Your task to perform on an android device: refresh tabs in the chrome app Image 0: 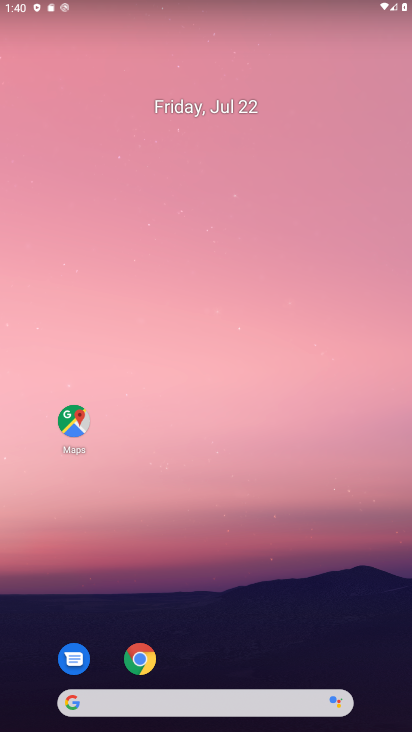
Step 0: click (151, 664)
Your task to perform on an android device: refresh tabs in the chrome app Image 1: 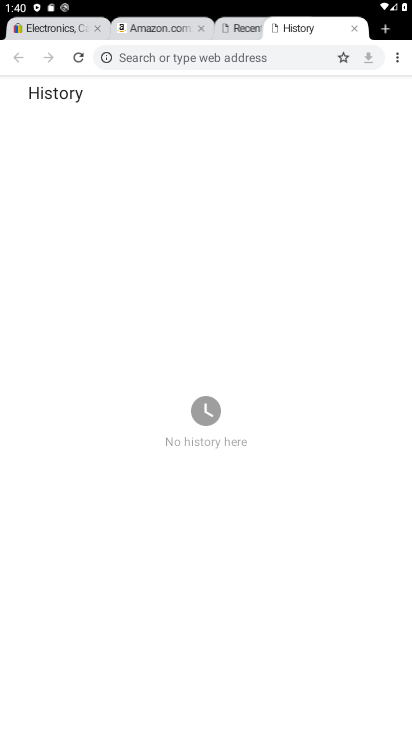
Step 1: task complete